Your task to perform on an android device: Go to Wikipedia Image 0: 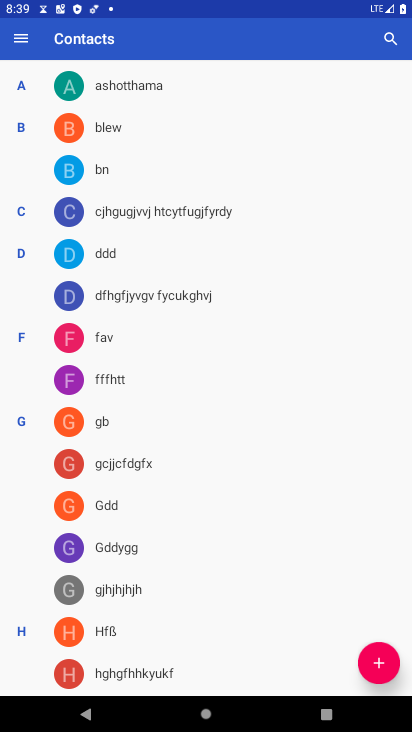
Step 0: press home button
Your task to perform on an android device: Go to Wikipedia Image 1: 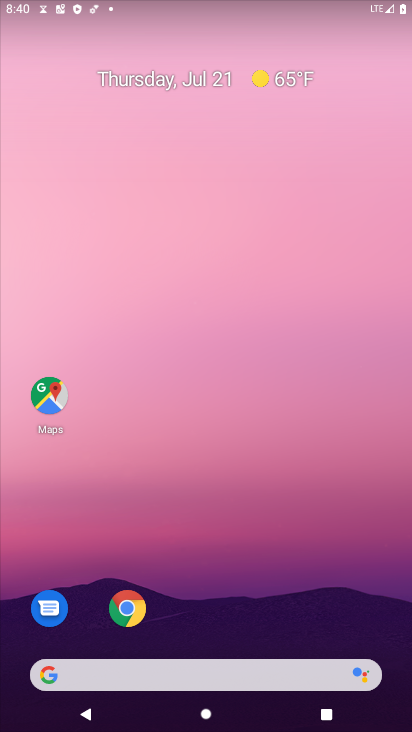
Step 1: click (129, 605)
Your task to perform on an android device: Go to Wikipedia Image 2: 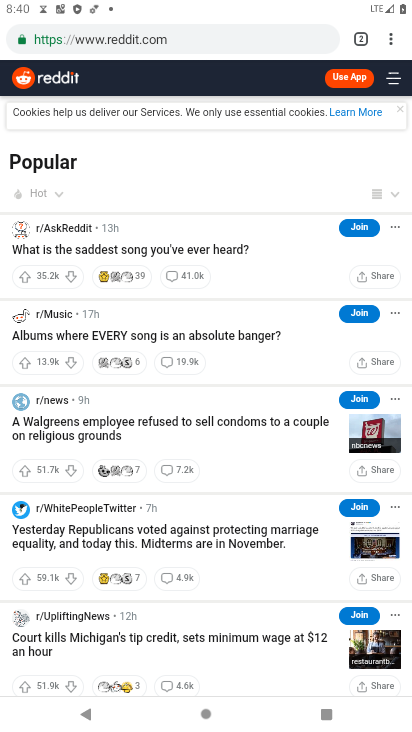
Step 2: click (213, 42)
Your task to perform on an android device: Go to Wikipedia Image 3: 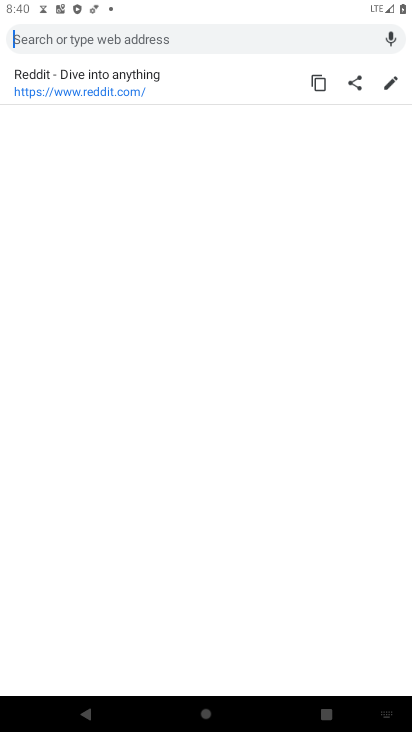
Step 3: type "Wikipedia"
Your task to perform on an android device: Go to Wikipedia Image 4: 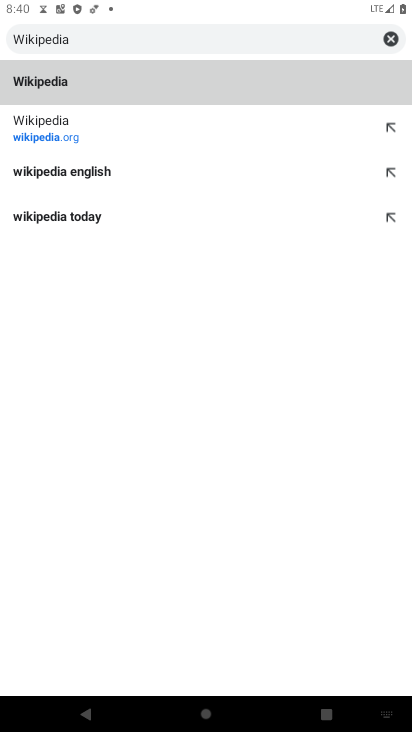
Step 4: click (64, 79)
Your task to perform on an android device: Go to Wikipedia Image 5: 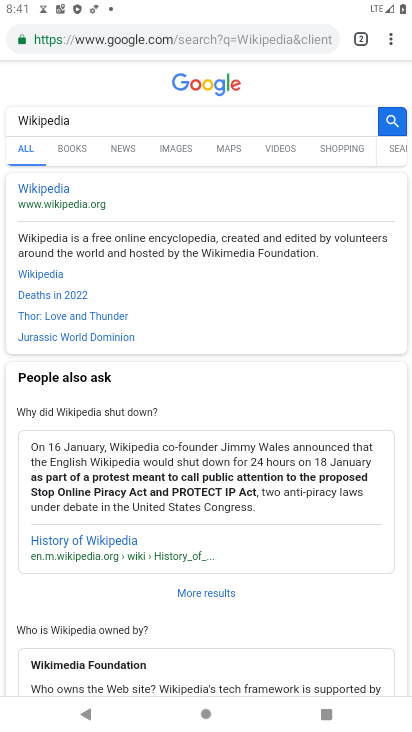
Step 5: click (63, 207)
Your task to perform on an android device: Go to Wikipedia Image 6: 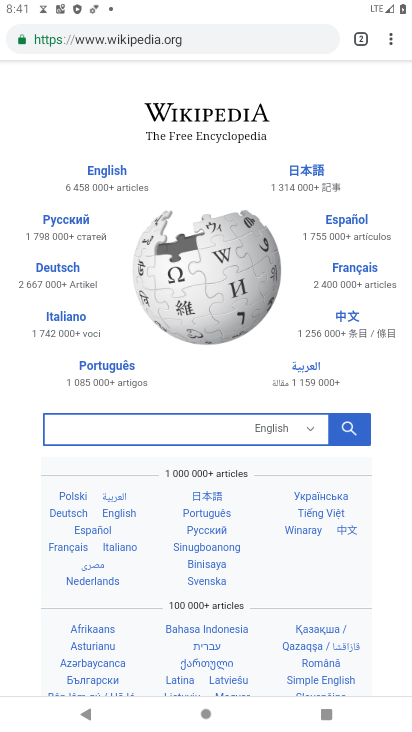
Step 6: task complete